Your task to perform on an android device: Open sound settings Image 0: 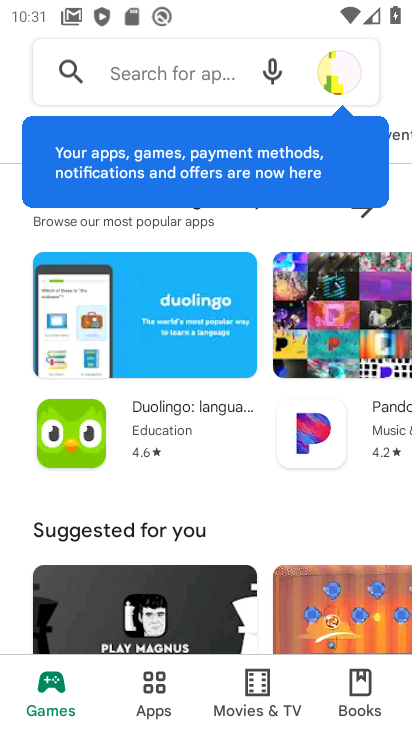
Step 0: press home button
Your task to perform on an android device: Open sound settings Image 1: 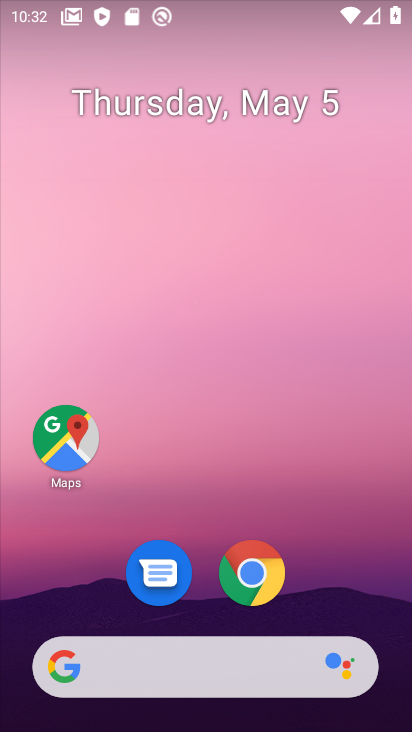
Step 1: drag from (104, 550) to (320, 142)
Your task to perform on an android device: Open sound settings Image 2: 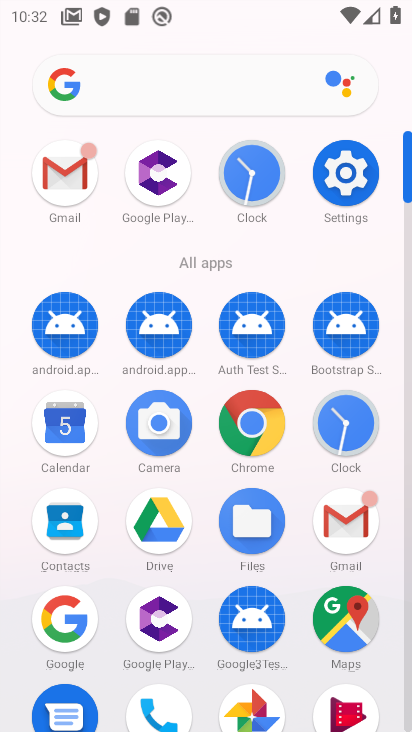
Step 2: click (336, 191)
Your task to perform on an android device: Open sound settings Image 3: 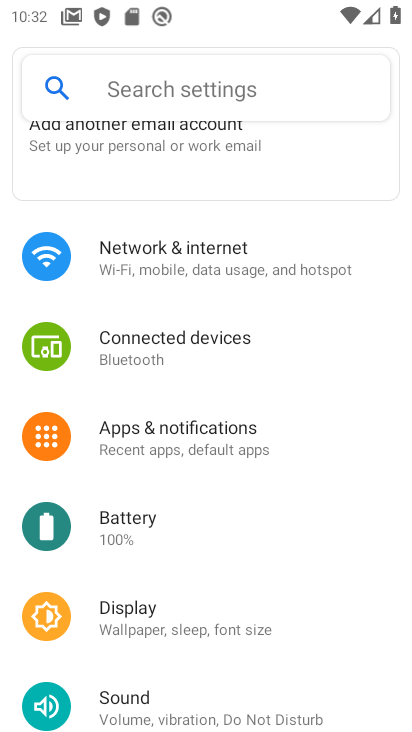
Step 3: click (95, 692)
Your task to perform on an android device: Open sound settings Image 4: 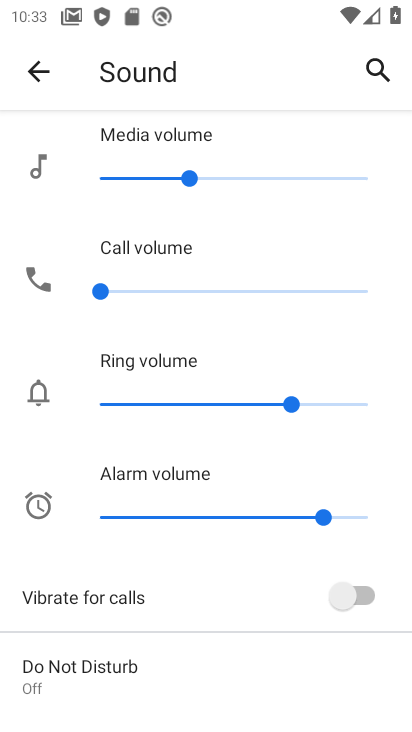
Step 4: task complete